Your task to perform on an android device: change the upload size in google photos Image 0: 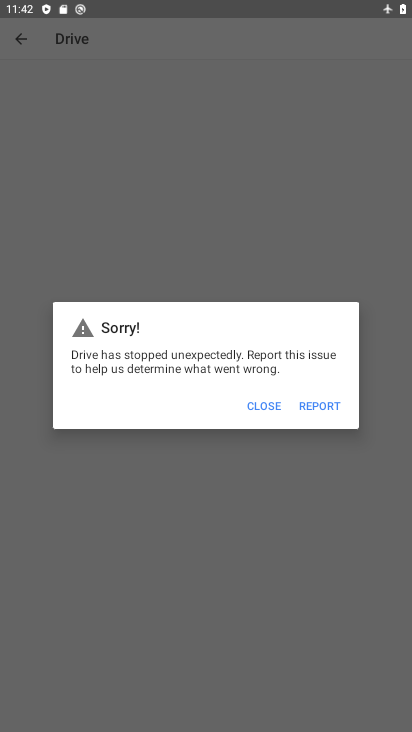
Step 0: press home button
Your task to perform on an android device: change the upload size in google photos Image 1: 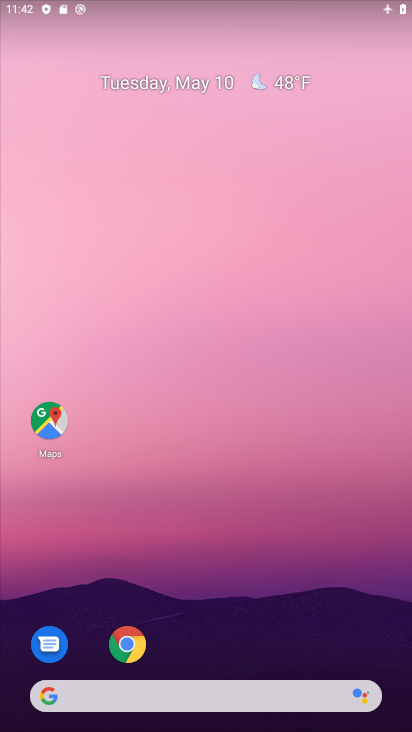
Step 1: drag from (205, 620) to (235, 78)
Your task to perform on an android device: change the upload size in google photos Image 2: 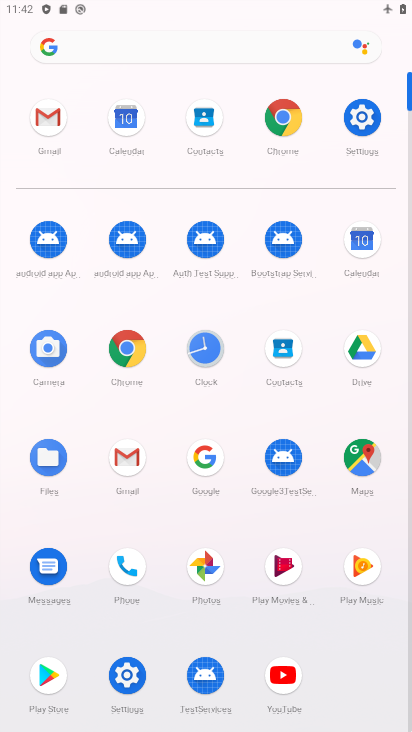
Step 2: click (205, 581)
Your task to perform on an android device: change the upload size in google photos Image 3: 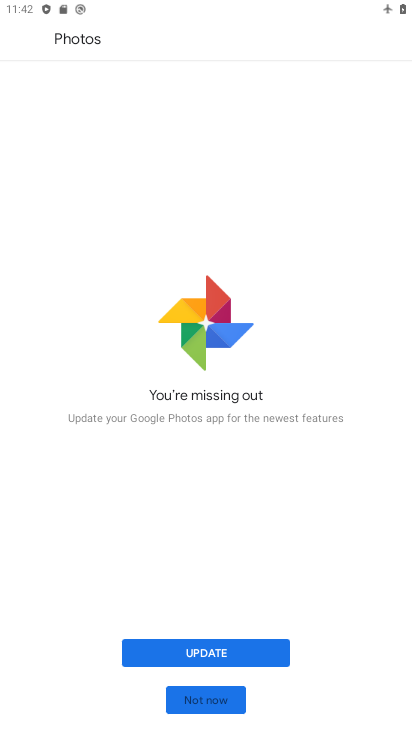
Step 3: click (210, 651)
Your task to perform on an android device: change the upload size in google photos Image 4: 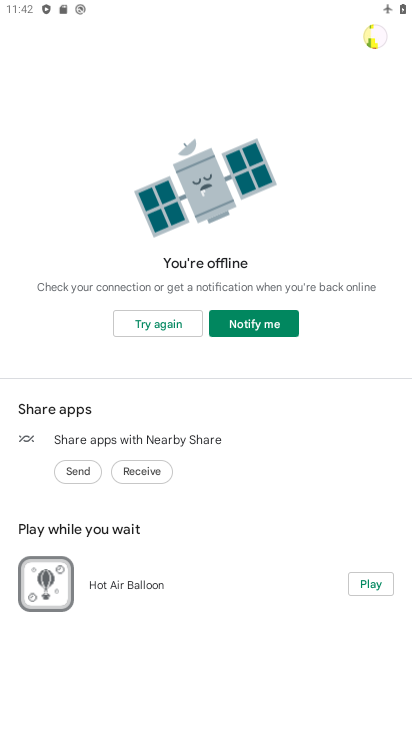
Step 4: click (175, 327)
Your task to perform on an android device: change the upload size in google photos Image 5: 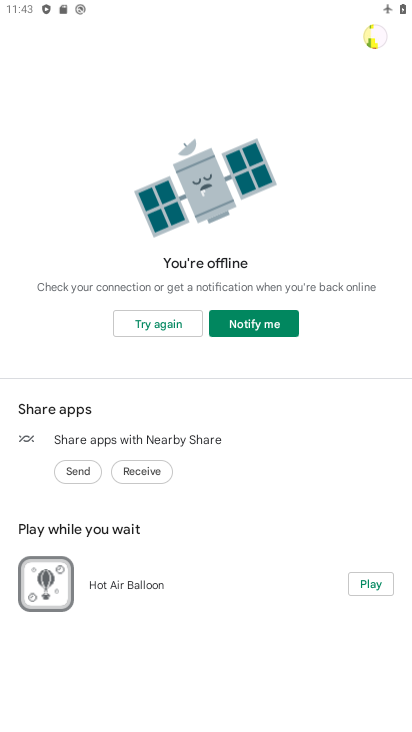
Step 5: press back button
Your task to perform on an android device: change the upload size in google photos Image 6: 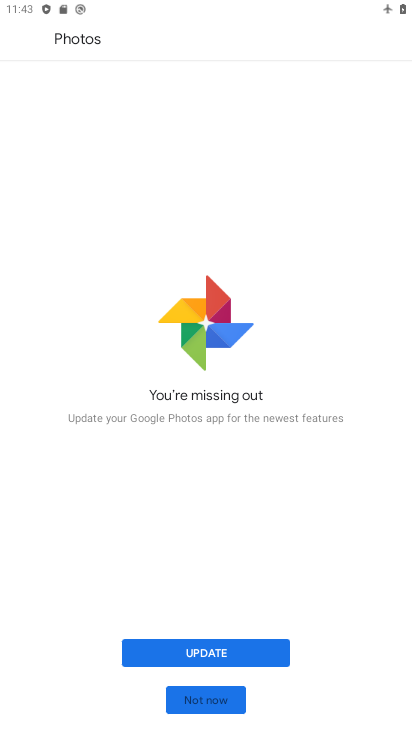
Step 6: click (222, 696)
Your task to perform on an android device: change the upload size in google photos Image 7: 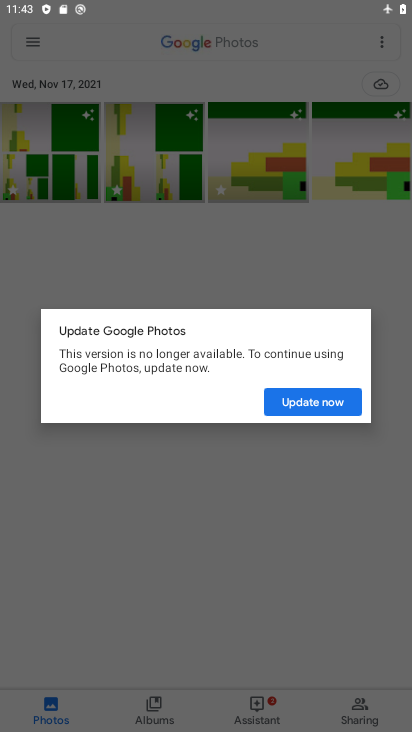
Step 7: click (345, 410)
Your task to perform on an android device: change the upload size in google photos Image 8: 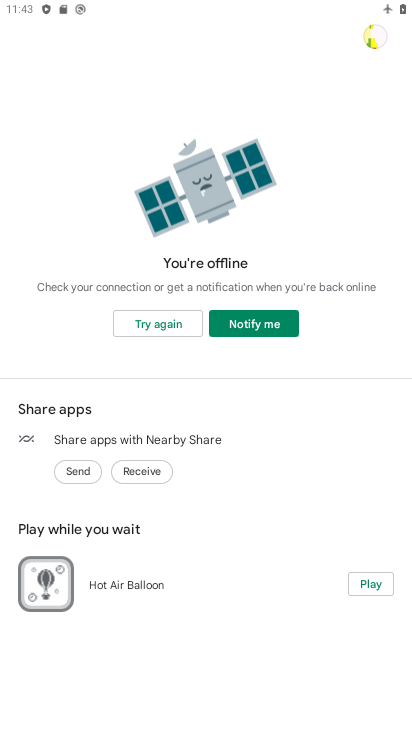
Step 8: press back button
Your task to perform on an android device: change the upload size in google photos Image 9: 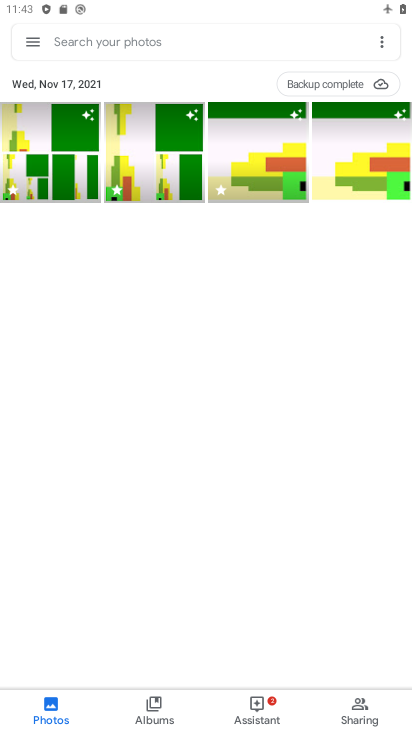
Step 9: click (34, 50)
Your task to perform on an android device: change the upload size in google photos Image 10: 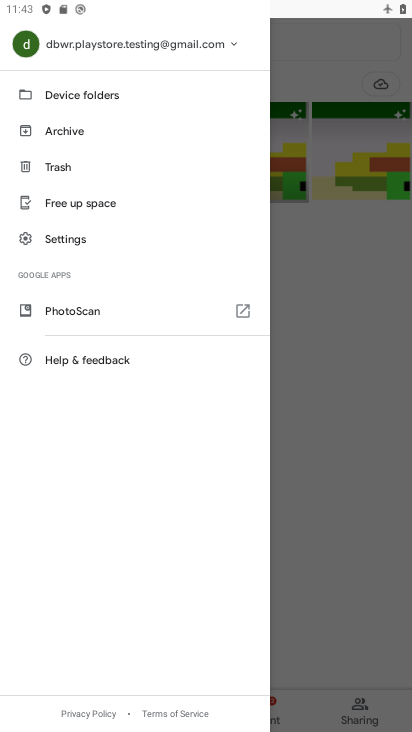
Step 10: click (91, 239)
Your task to perform on an android device: change the upload size in google photos Image 11: 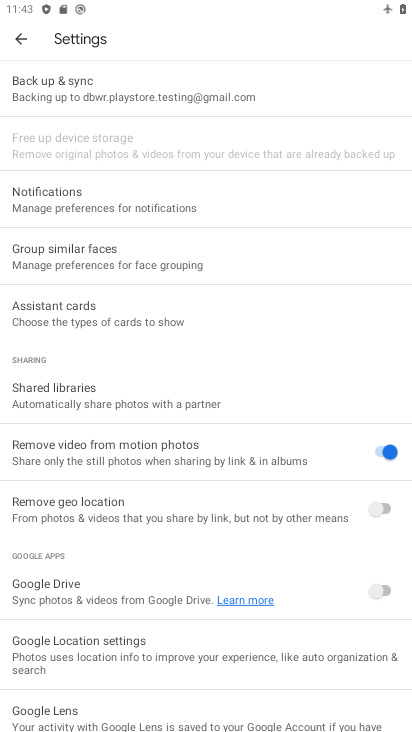
Step 11: click (125, 81)
Your task to perform on an android device: change the upload size in google photos Image 12: 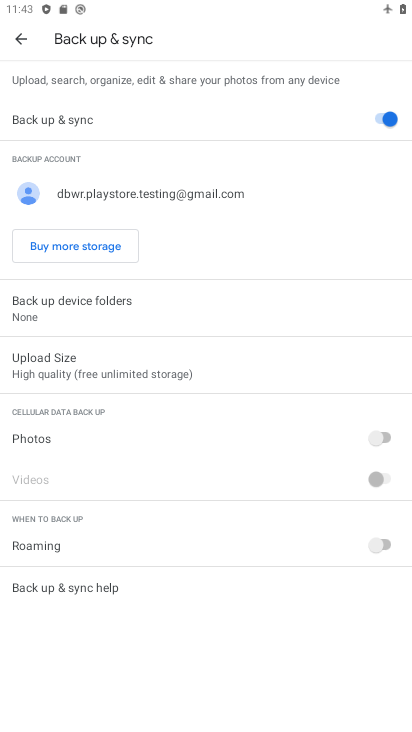
Step 12: click (103, 367)
Your task to perform on an android device: change the upload size in google photos Image 13: 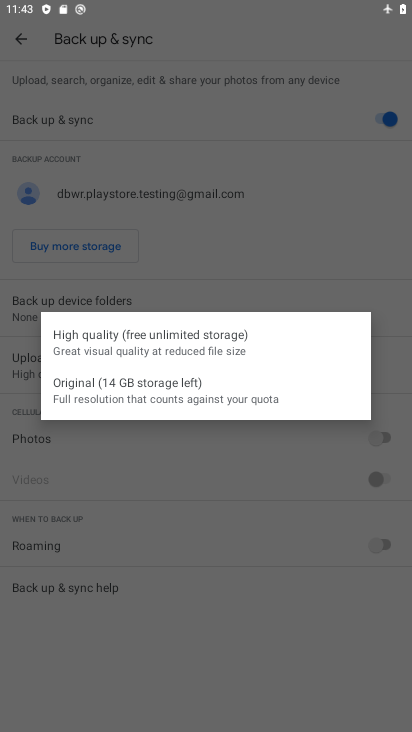
Step 13: click (99, 385)
Your task to perform on an android device: change the upload size in google photos Image 14: 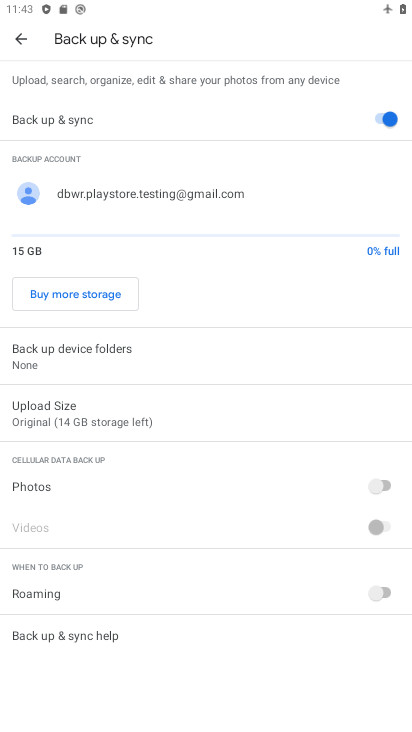
Step 14: task complete